Your task to perform on an android device: Show the shopping cart on target. Image 0: 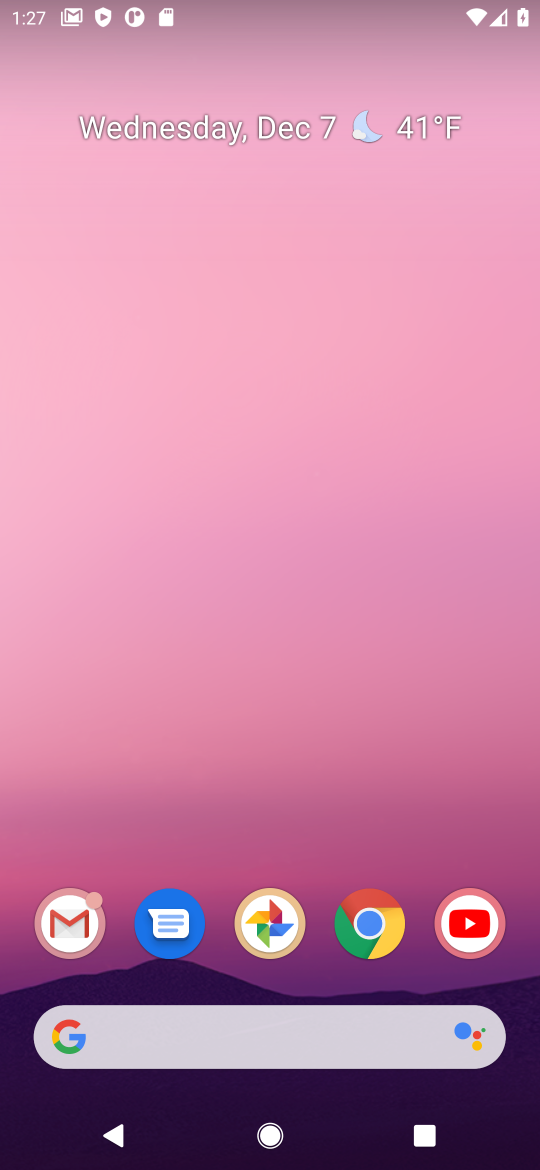
Step 0: task complete